Your task to perform on an android device: Go to CNN.com Image 0: 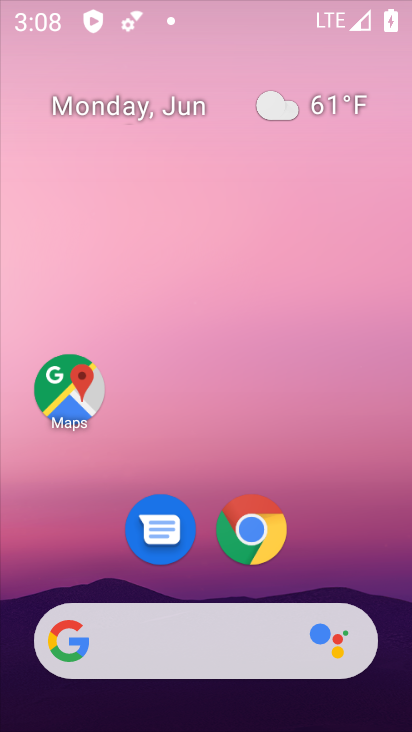
Step 0: drag from (291, 712) to (218, 167)
Your task to perform on an android device: Go to CNN.com Image 1: 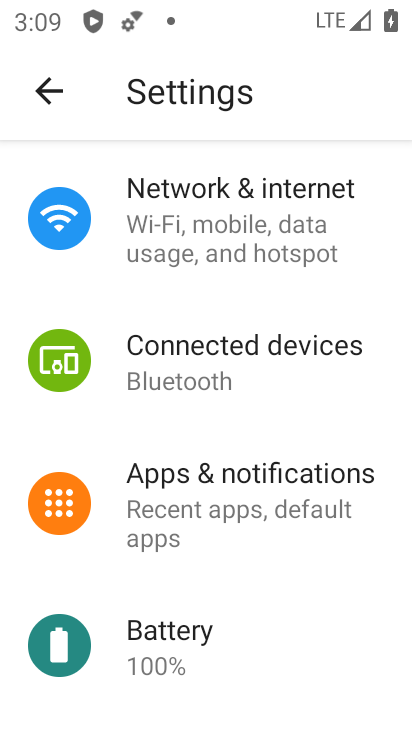
Step 1: press home button
Your task to perform on an android device: Go to CNN.com Image 2: 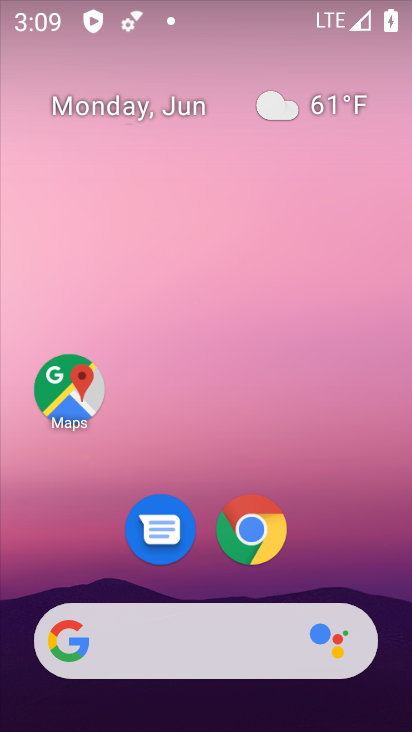
Step 2: drag from (265, 474) to (155, 94)
Your task to perform on an android device: Go to CNN.com Image 3: 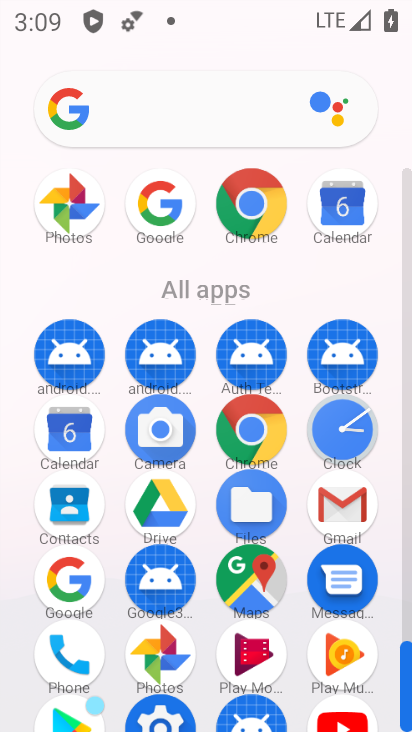
Step 3: click (248, 207)
Your task to perform on an android device: Go to CNN.com Image 4: 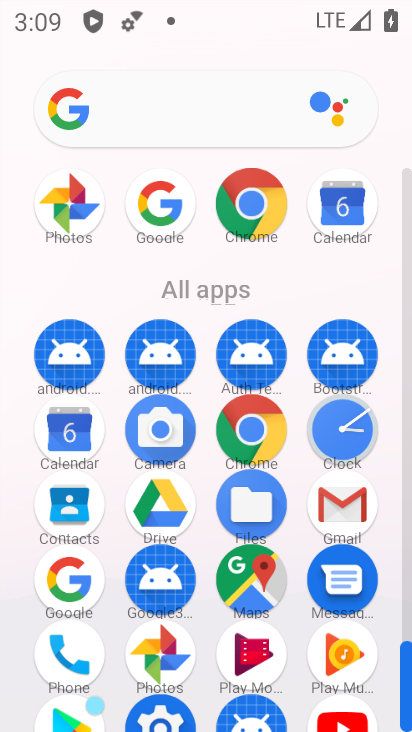
Step 4: click (248, 207)
Your task to perform on an android device: Go to CNN.com Image 5: 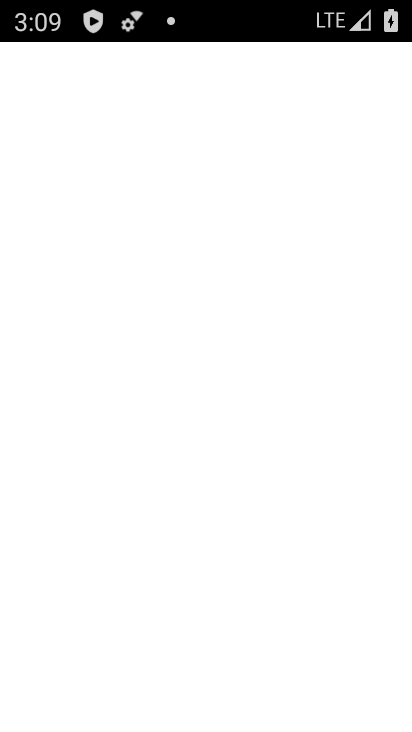
Step 5: click (248, 207)
Your task to perform on an android device: Go to CNN.com Image 6: 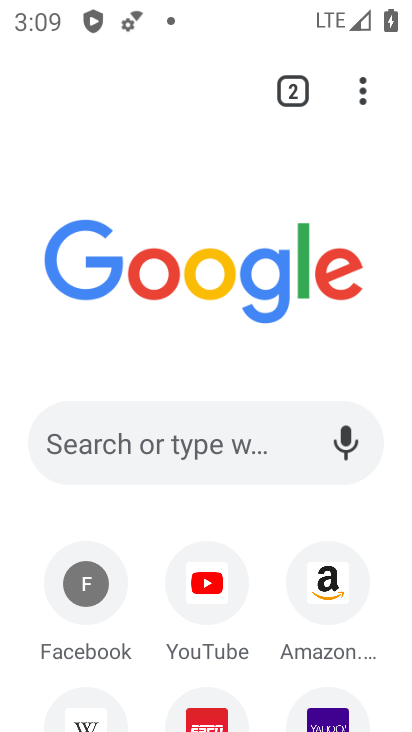
Step 6: click (82, 450)
Your task to perform on an android device: Go to CNN.com Image 7: 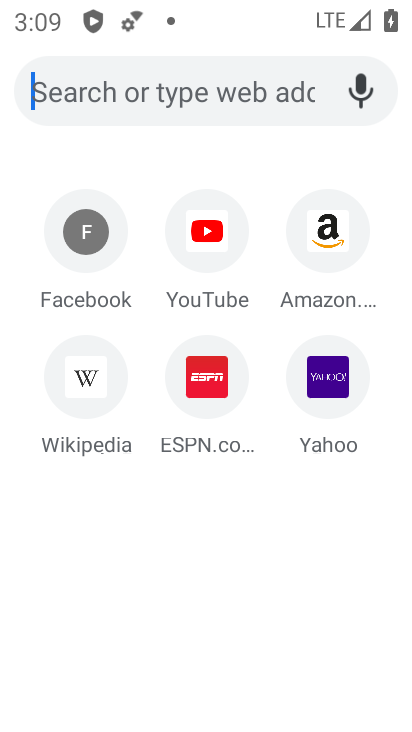
Step 7: click (79, 445)
Your task to perform on an android device: Go to CNN.com Image 8: 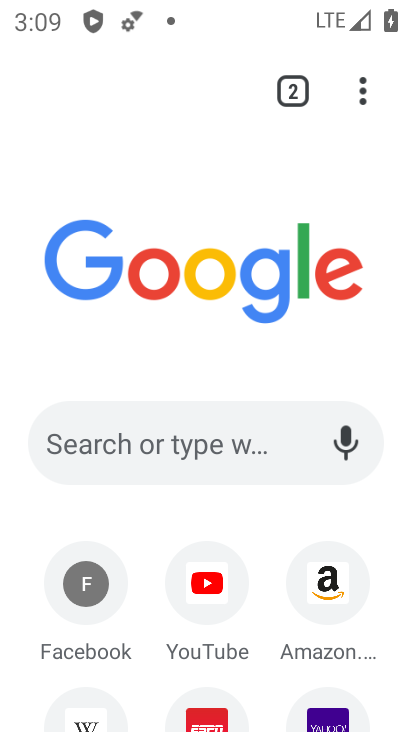
Step 8: type "cnn.com"
Your task to perform on an android device: Go to CNN.com Image 9: 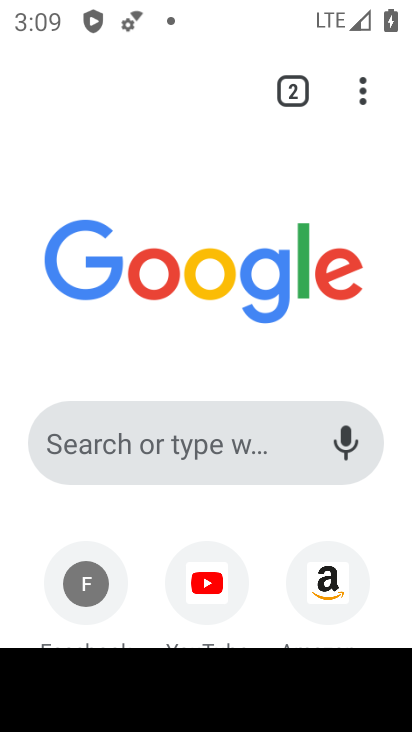
Step 9: click (122, 448)
Your task to perform on an android device: Go to CNN.com Image 10: 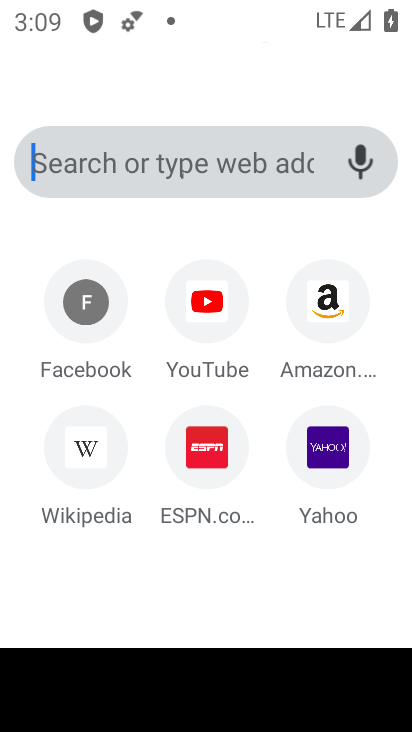
Step 10: click (120, 448)
Your task to perform on an android device: Go to CNN.com Image 11: 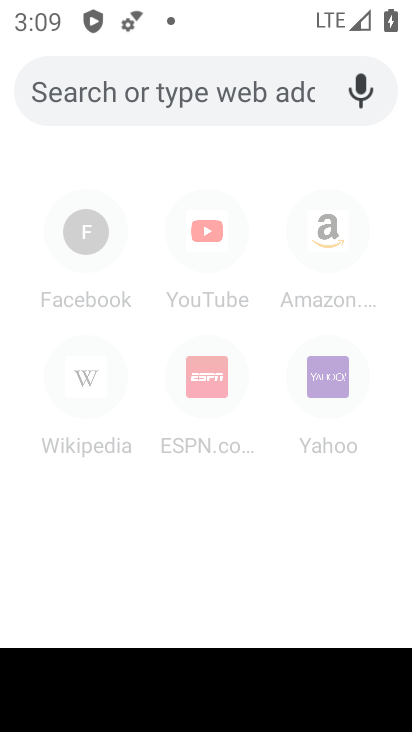
Step 11: click (119, 448)
Your task to perform on an android device: Go to CNN.com Image 12: 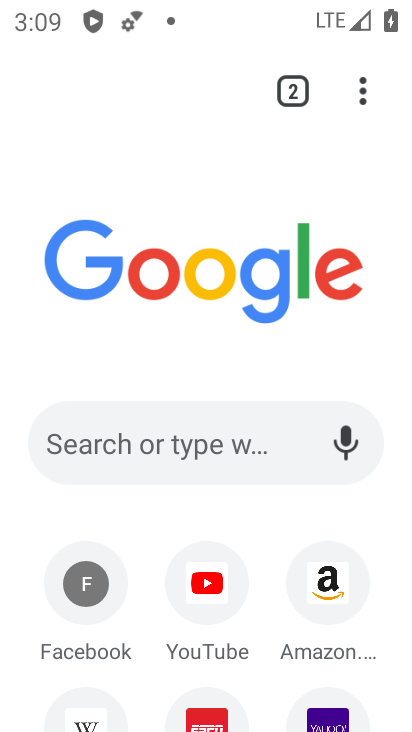
Step 12: click (65, 451)
Your task to perform on an android device: Go to CNN.com Image 13: 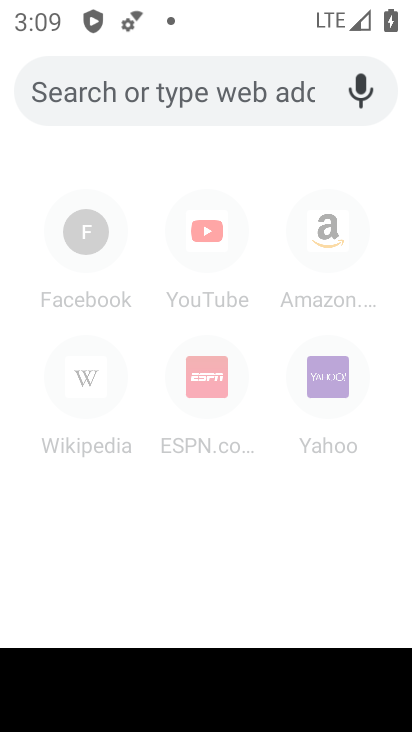
Step 13: type "cnn.com"
Your task to perform on an android device: Go to CNN.com Image 14: 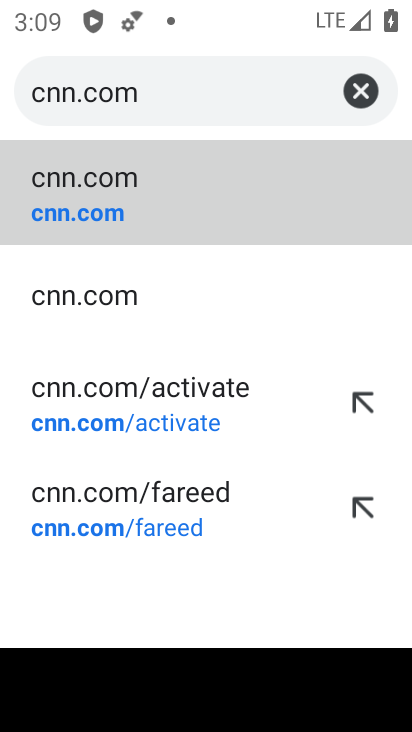
Step 14: click (77, 181)
Your task to perform on an android device: Go to CNN.com Image 15: 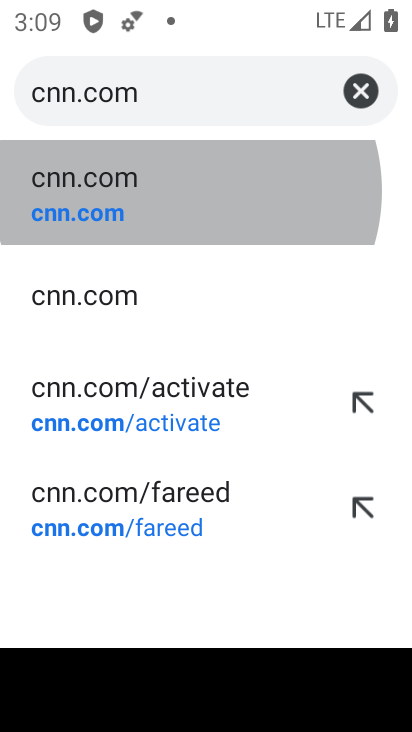
Step 15: click (86, 208)
Your task to perform on an android device: Go to CNN.com Image 16: 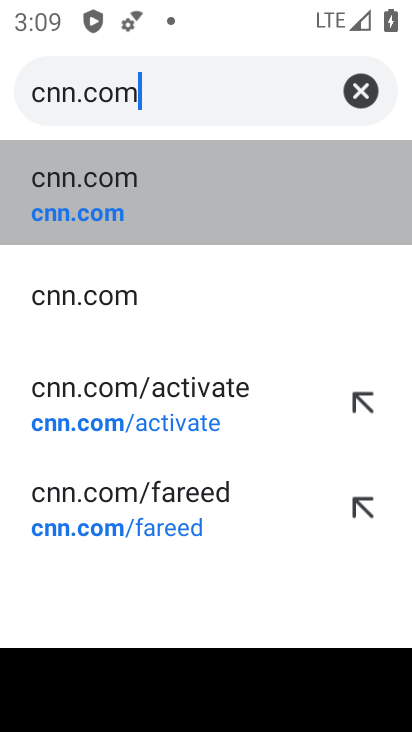
Step 16: click (97, 219)
Your task to perform on an android device: Go to CNN.com Image 17: 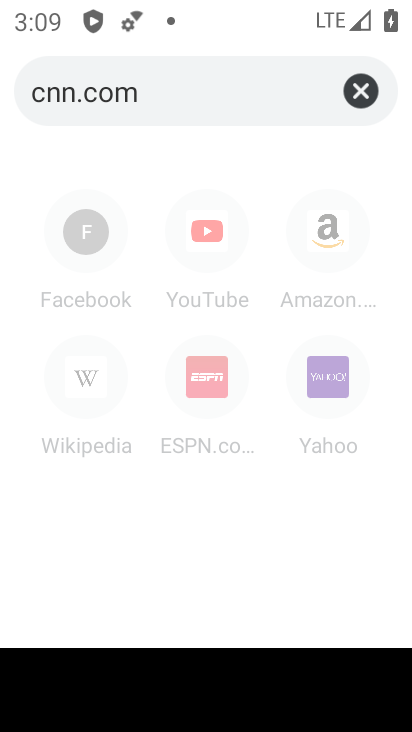
Step 17: click (97, 225)
Your task to perform on an android device: Go to CNN.com Image 18: 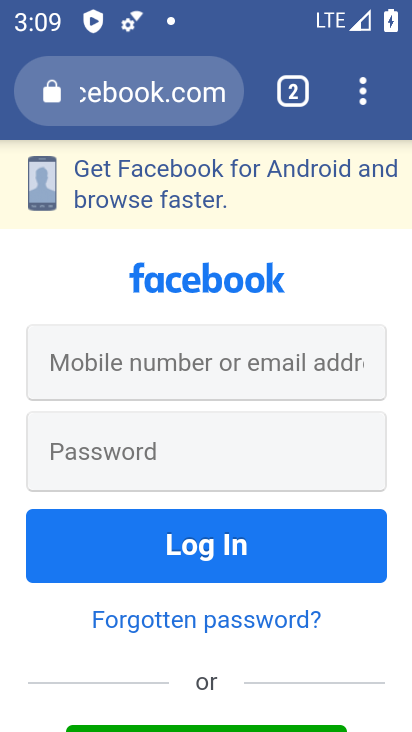
Step 18: task complete